Your task to perform on an android device: open chrome privacy settings Image 0: 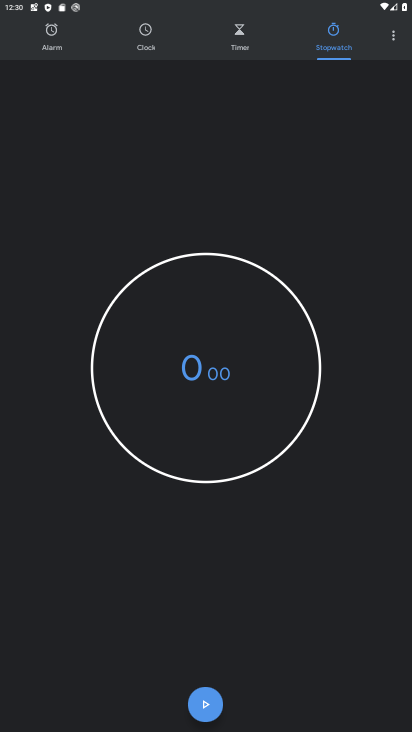
Step 0: press home button
Your task to perform on an android device: open chrome privacy settings Image 1: 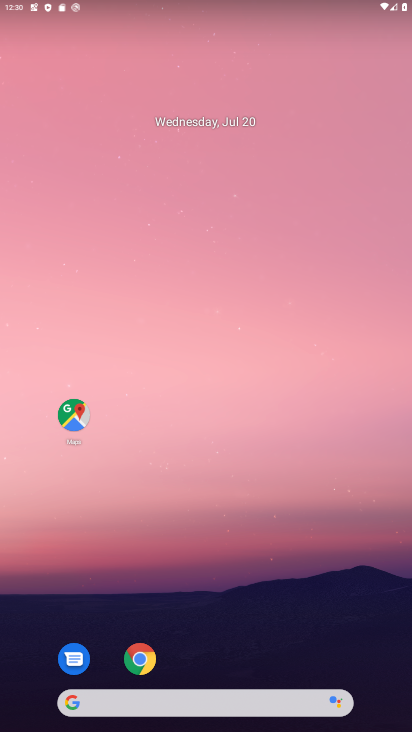
Step 1: drag from (219, 546) to (171, 324)
Your task to perform on an android device: open chrome privacy settings Image 2: 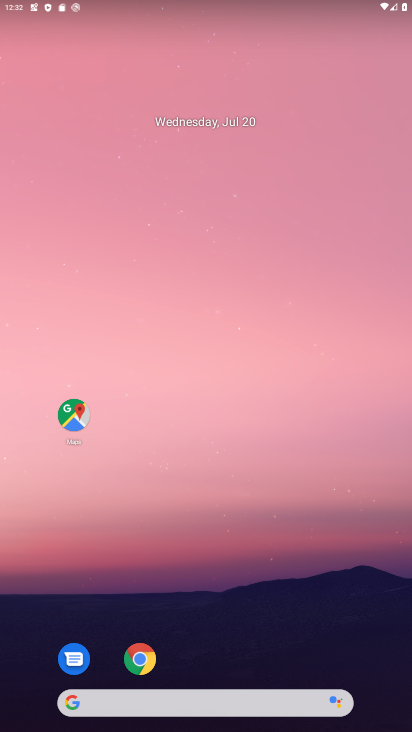
Step 2: click (141, 653)
Your task to perform on an android device: open chrome privacy settings Image 3: 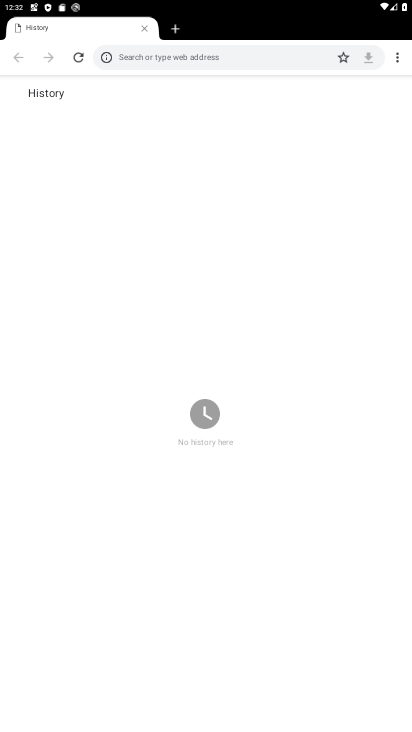
Step 3: click (394, 59)
Your task to perform on an android device: open chrome privacy settings Image 4: 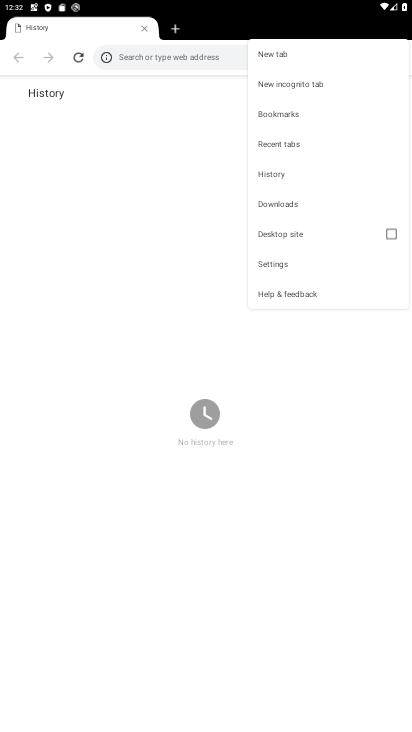
Step 4: click (292, 259)
Your task to perform on an android device: open chrome privacy settings Image 5: 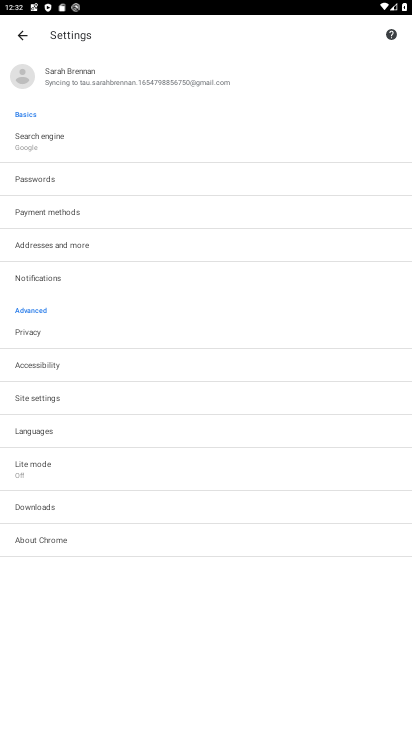
Step 5: task complete